Your task to perform on an android device: set the timer Image 0: 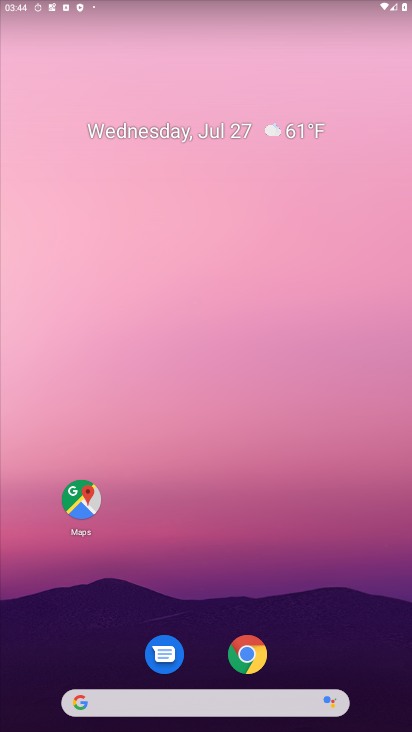
Step 0: drag from (277, 504) to (230, 35)
Your task to perform on an android device: set the timer Image 1: 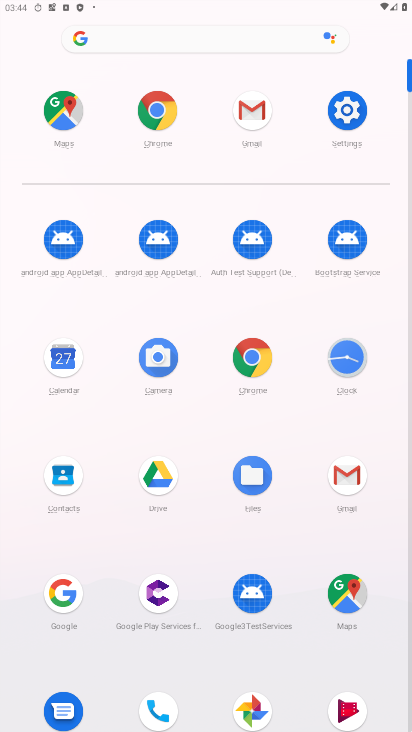
Step 1: click (342, 355)
Your task to perform on an android device: set the timer Image 2: 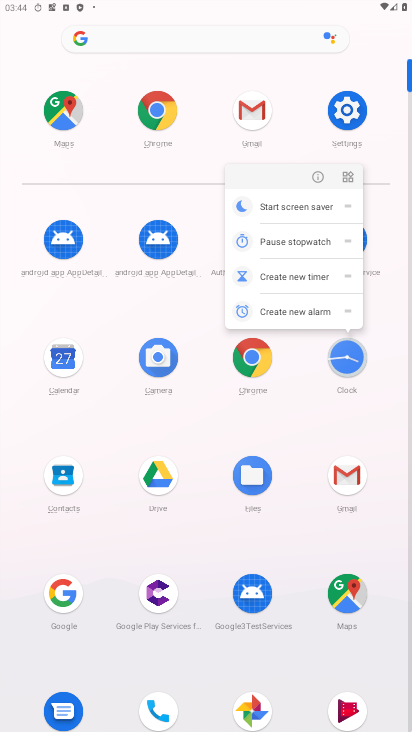
Step 2: click (351, 356)
Your task to perform on an android device: set the timer Image 3: 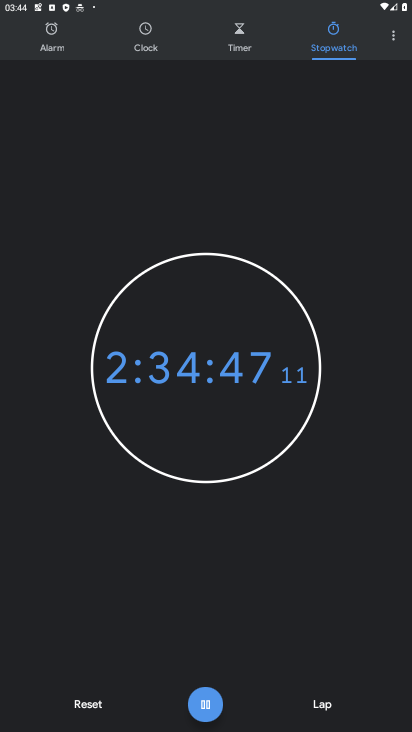
Step 3: click (242, 28)
Your task to perform on an android device: set the timer Image 4: 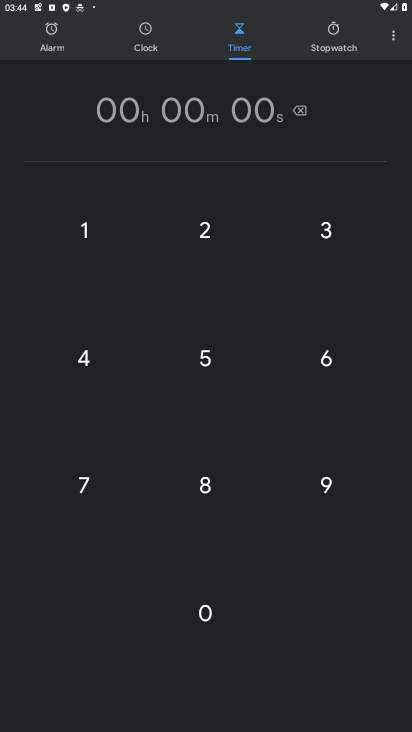
Step 4: click (203, 511)
Your task to perform on an android device: set the timer Image 5: 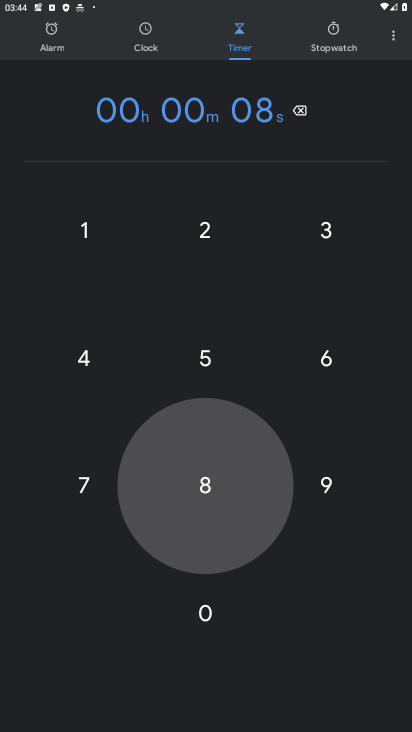
Step 5: click (291, 514)
Your task to perform on an android device: set the timer Image 6: 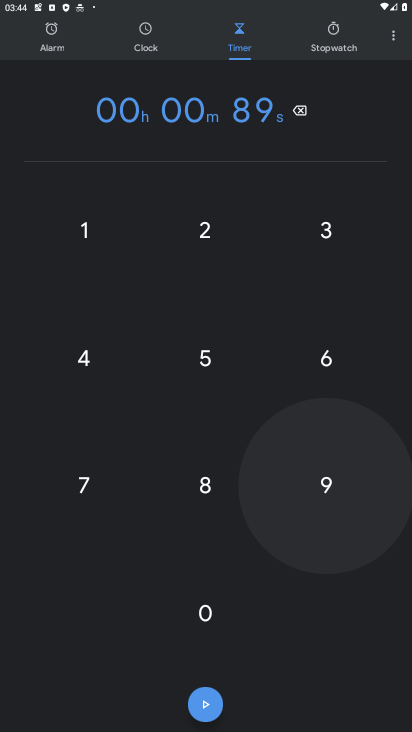
Step 6: click (221, 372)
Your task to perform on an android device: set the timer Image 7: 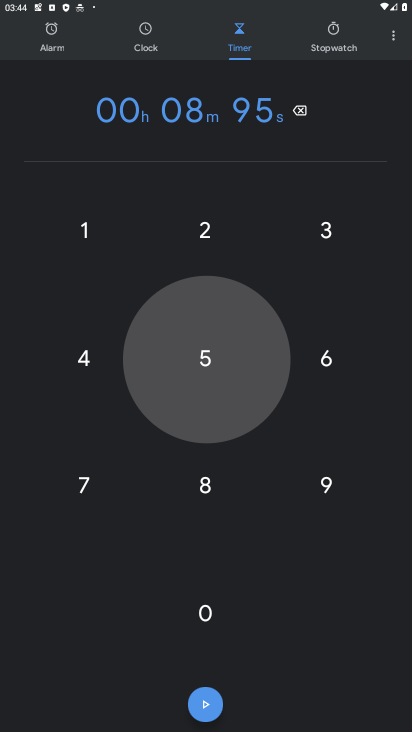
Step 7: click (321, 375)
Your task to perform on an android device: set the timer Image 8: 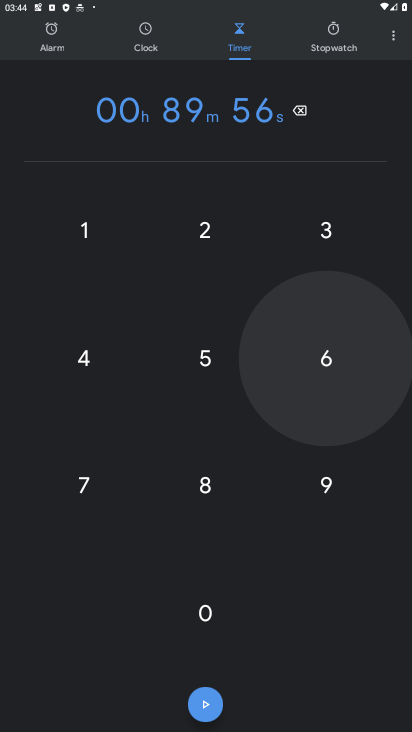
Step 8: click (238, 243)
Your task to perform on an android device: set the timer Image 9: 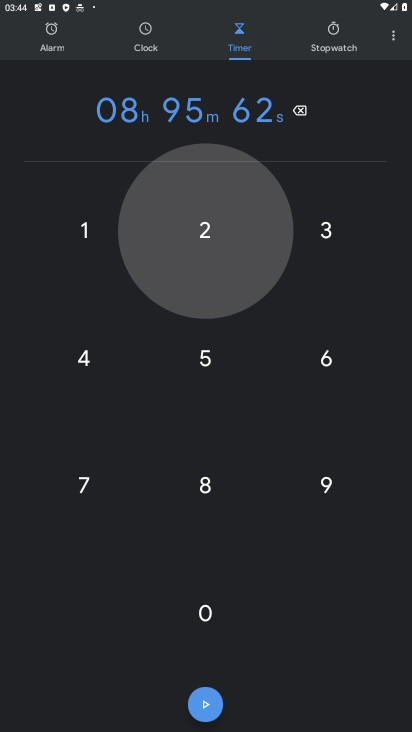
Step 9: click (292, 246)
Your task to perform on an android device: set the timer Image 10: 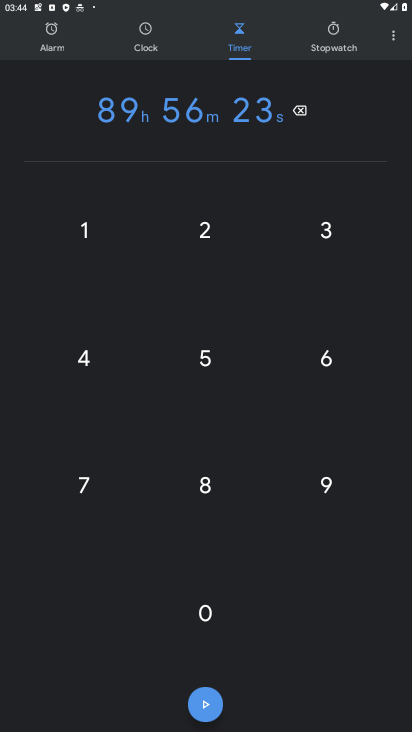
Step 10: click (200, 703)
Your task to perform on an android device: set the timer Image 11: 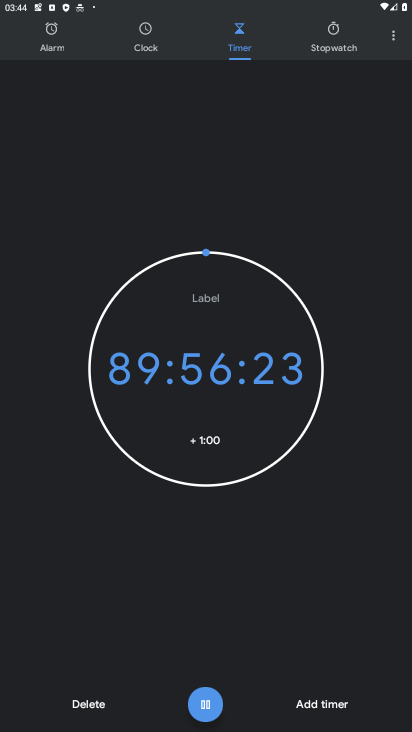
Step 11: task complete